Your task to perform on an android device: turn off data saver in the chrome app Image 0: 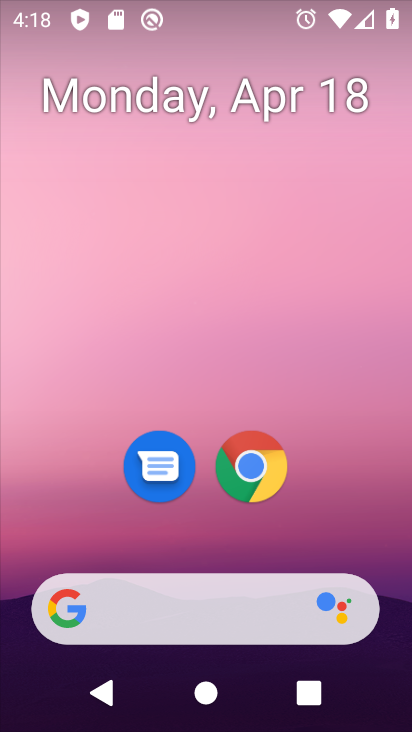
Step 0: drag from (316, 472) to (228, 32)
Your task to perform on an android device: turn off data saver in the chrome app Image 1: 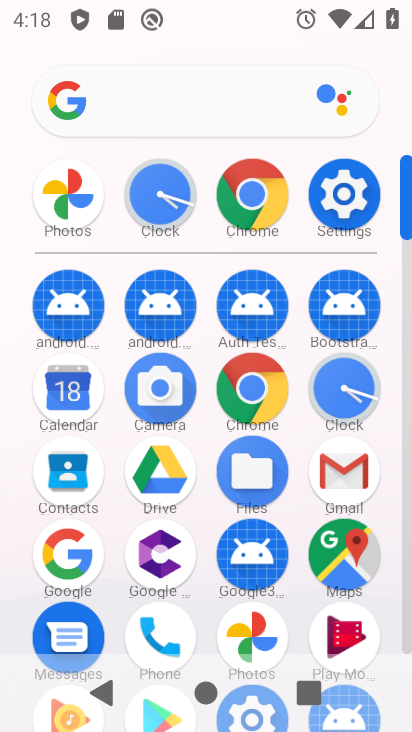
Step 1: drag from (12, 493) to (15, 155)
Your task to perform on an android device: turn off data saver in the chrome app Image 2: 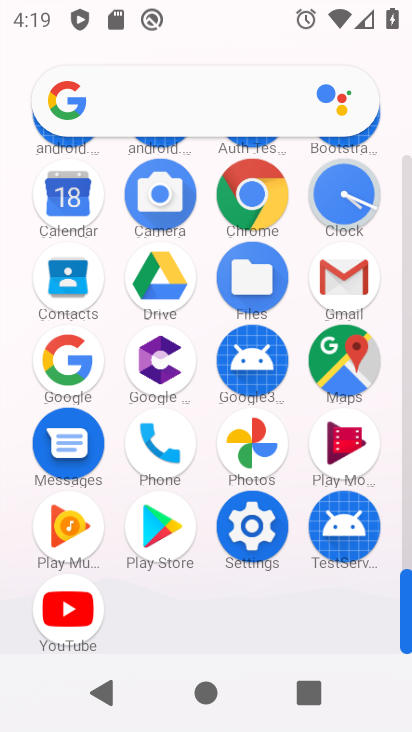
Step 2: click (250, 186)
Your task to perform on an android device: turn off data saver in the chrome app Image 3: 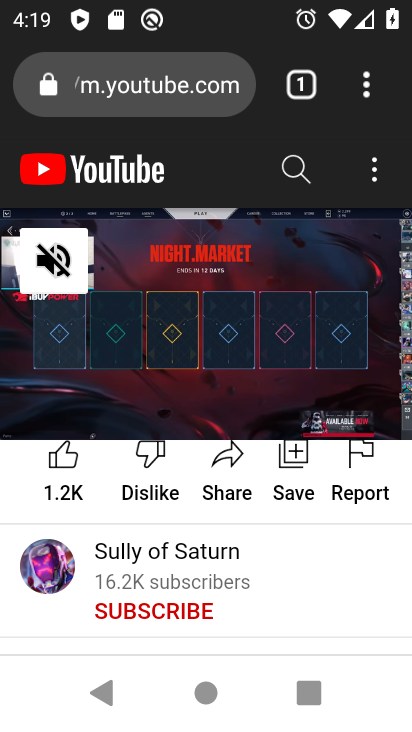
Step 3: click (371, 80)
Your task to perform on an android device: turn off data saver in the chrome app Image 4: 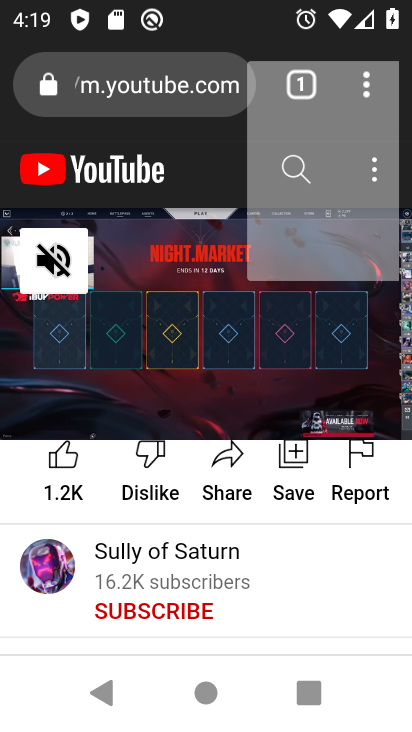
Step 4: click (368, 81)
Your task to perform on an android device: turn off data saver in the chrome app Image 5: 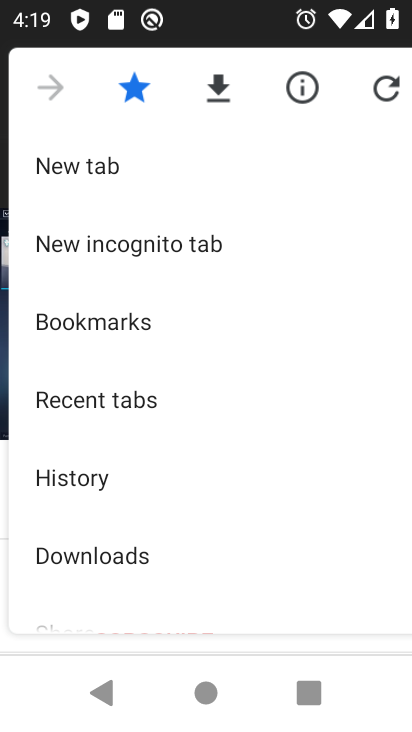
Step 5: drag from (172, 509) to (168, 146)
Your task to perform on an android device: turn off data saver in the chrome app Image 6: 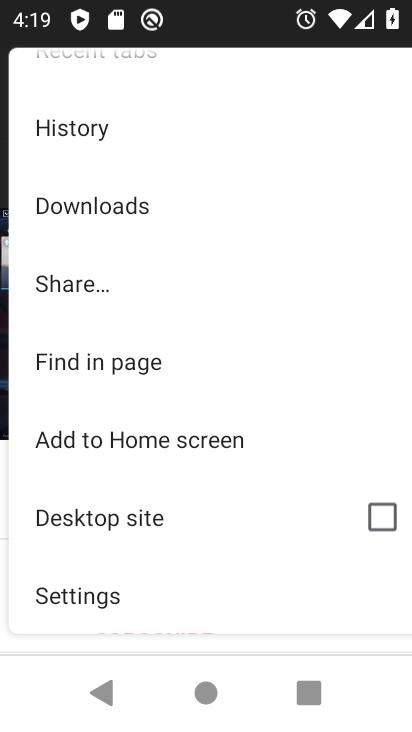
Step 6: click (108, 582)
Your task to perform on an android device: turn off data saver in the chrome app Image 7: 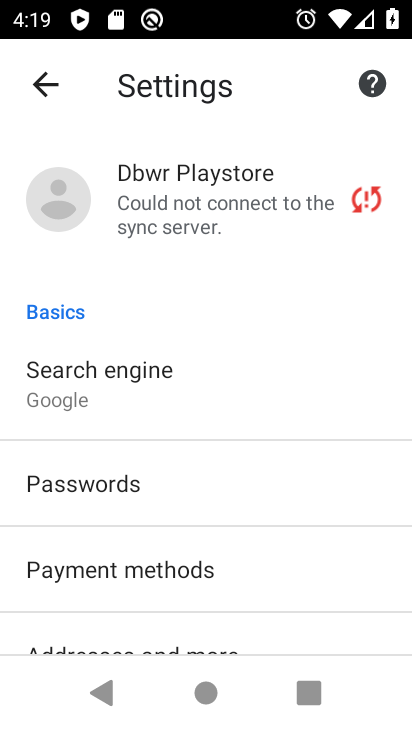
Step 7: drag from (290, 534) to (248, 171)
Your task to perform on an android device: turn off data saver in the chrome app Image 8: 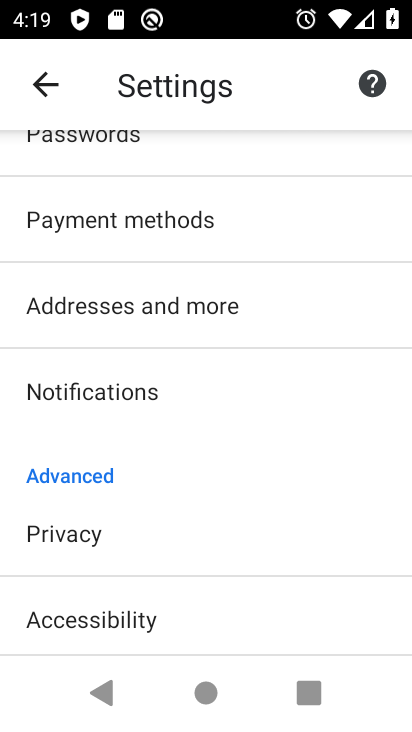
Step 8: drag from (248, 517) to (246, 143)
Your task to perform on an android device: turn off data saver in the chrome app Image 9: 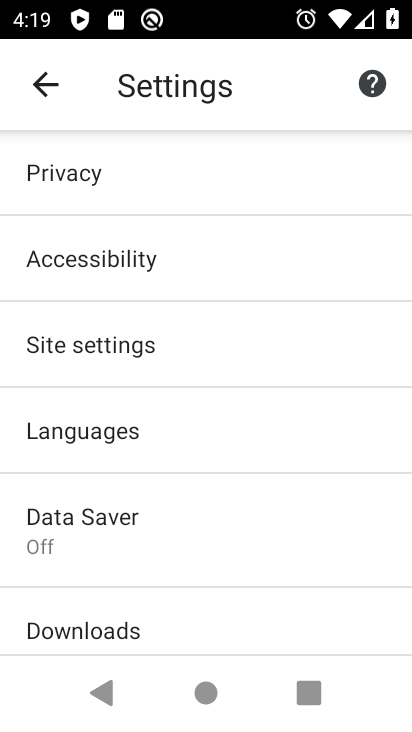
Step 9: click (120, 531)
Your task to perform on an android device: turn off data saver in the chrome app Image 10: 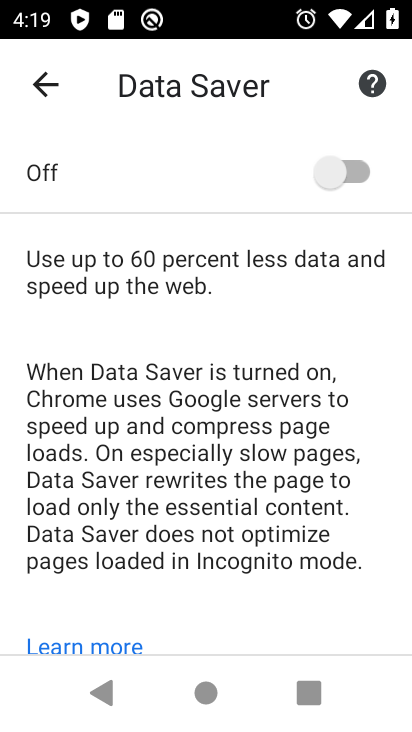
Step 10: task complete